Your task to perform on an android device: check storage Image 0: 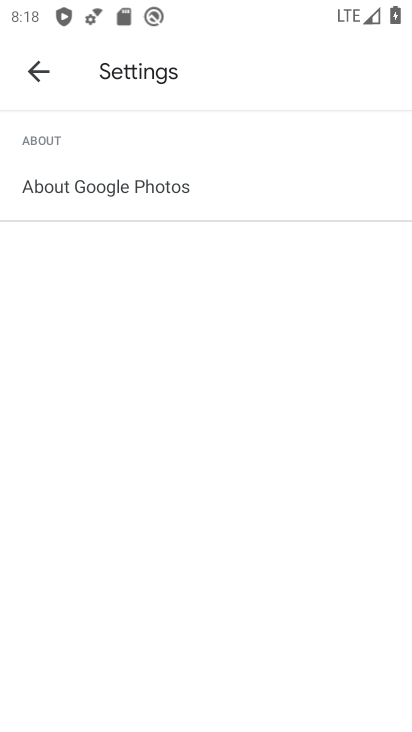
Step 0: press home button
Your task to perform on an android device: check storage Image 1: 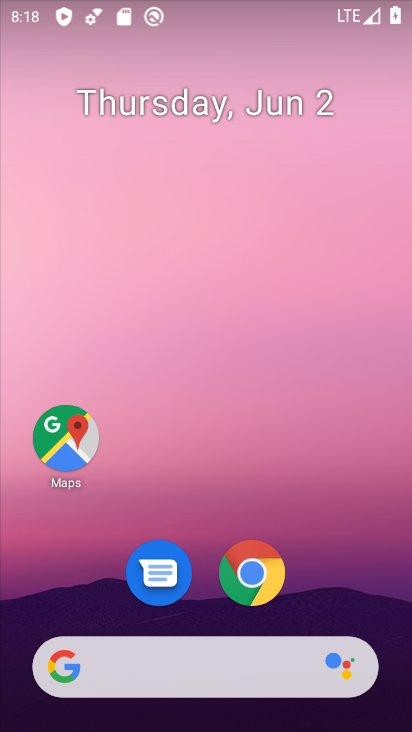
Step 1: drag from (348, 523) to (197, 4)
Your task to perform on an android device: check storage Image 2: 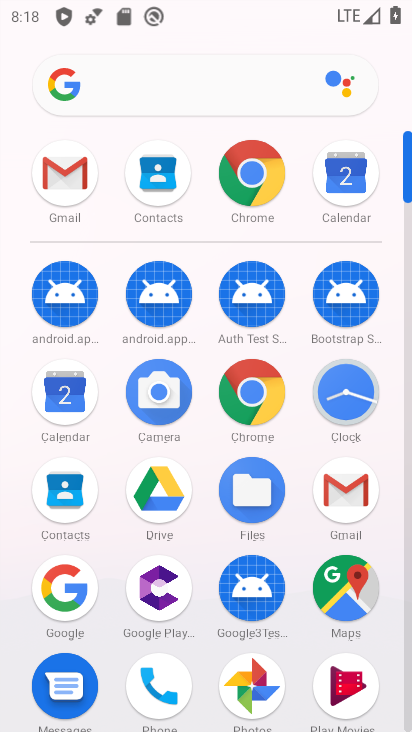
Step 2: drag from (396, 658) to (368, 42)
Your task to perform on an android device: check storage Image 3: 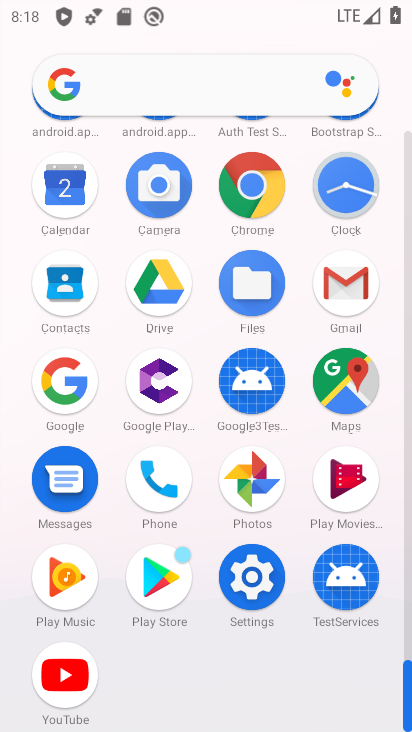
Step 3: click (247, 594)
Your task to perform on an android device: check storage Image 4: 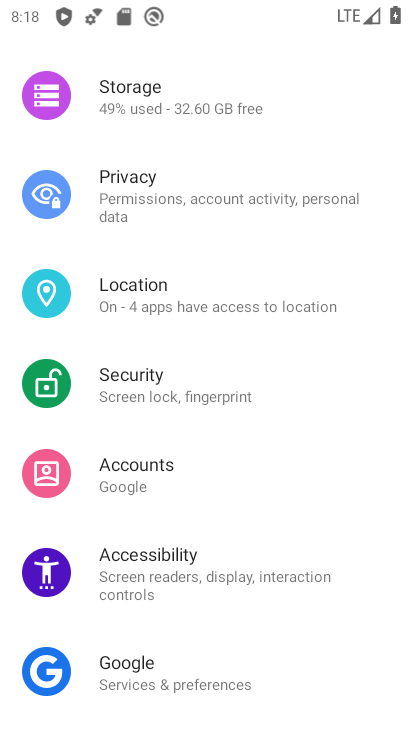
Step 4: click (183, 127)
Your task to perform on an android device: check storage Image 5: 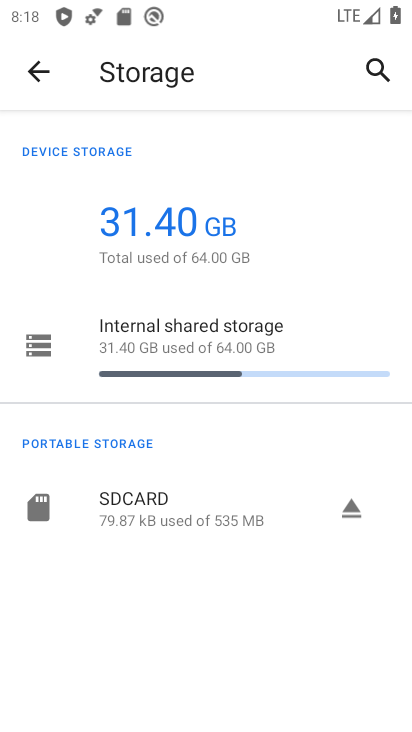
Step 5: click (156, 374)
Your task to perform on an android device: check storage Image 6: 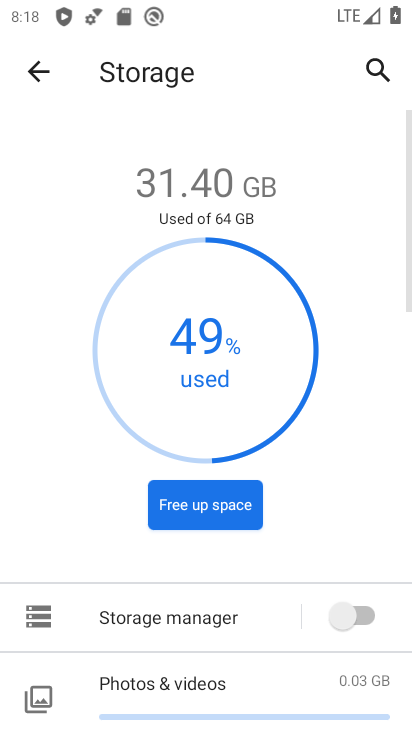
Step 6: task complete